Your task to perform on an android device: Open the calendar app, open the side menu, and click the "Day" option Image 0: 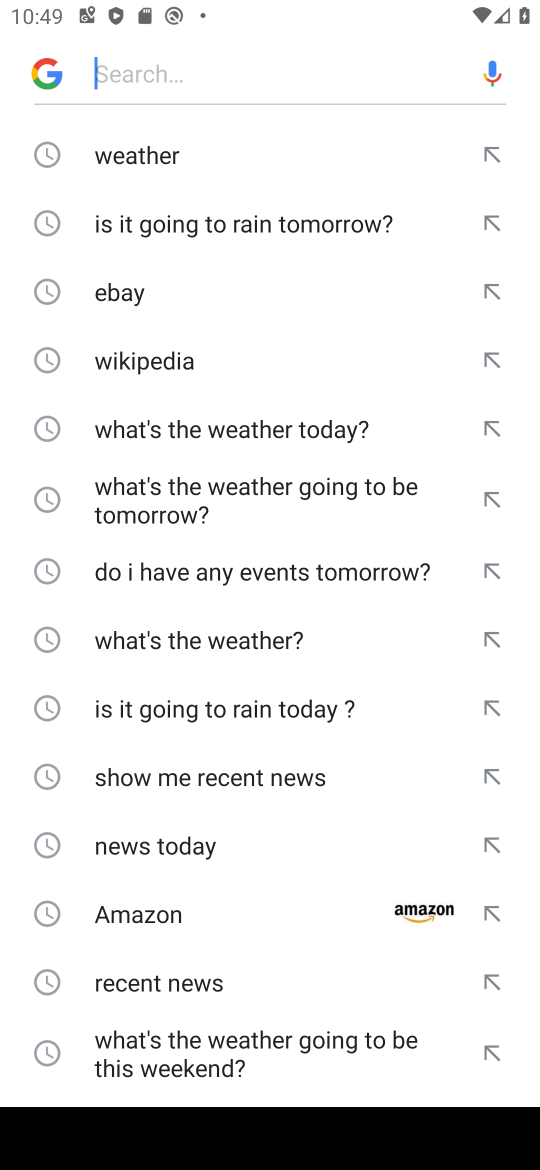
Step 0: press back button
Your task to perform on an android device: Open the calendar app, open the side menu, and click the "Day" option Image 1: 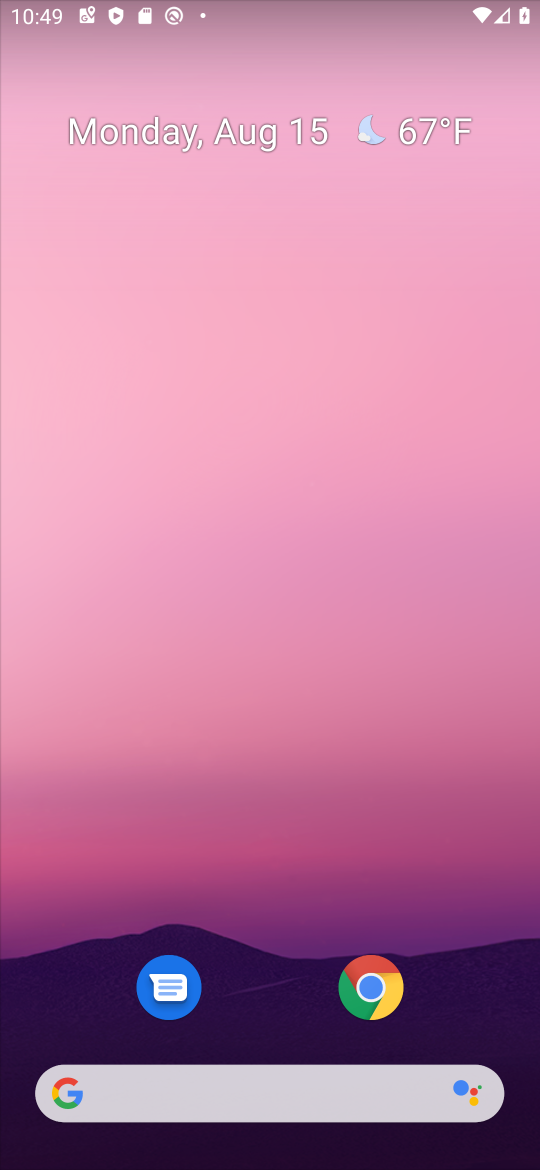
Step 1: drag from (297, 1010) to (293, 27)
Your task to perform on an android device: Open the calendar app, open the side menu, and click the "Day" option Image 2: 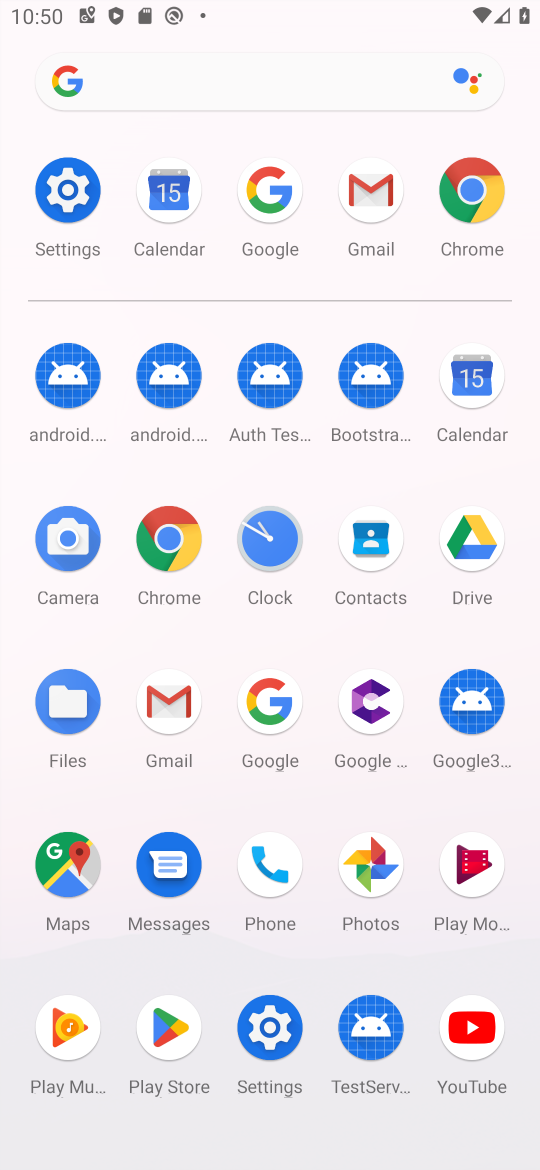
Step 2: click (478, 377)
Your task to perform on an android device: Open the calendar app, open the side menu, and click the "Day" option Image 3: 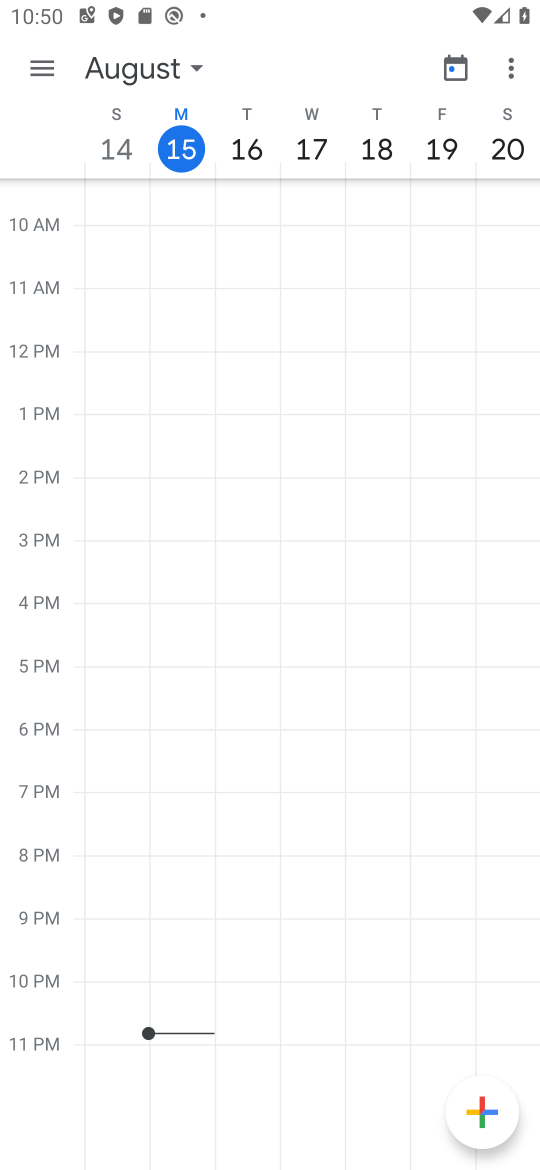
Step 3: click (43, 64)
Your task to perform on an android device: Open the calendar app, open the side menu, and click the "Day" option Image 4: 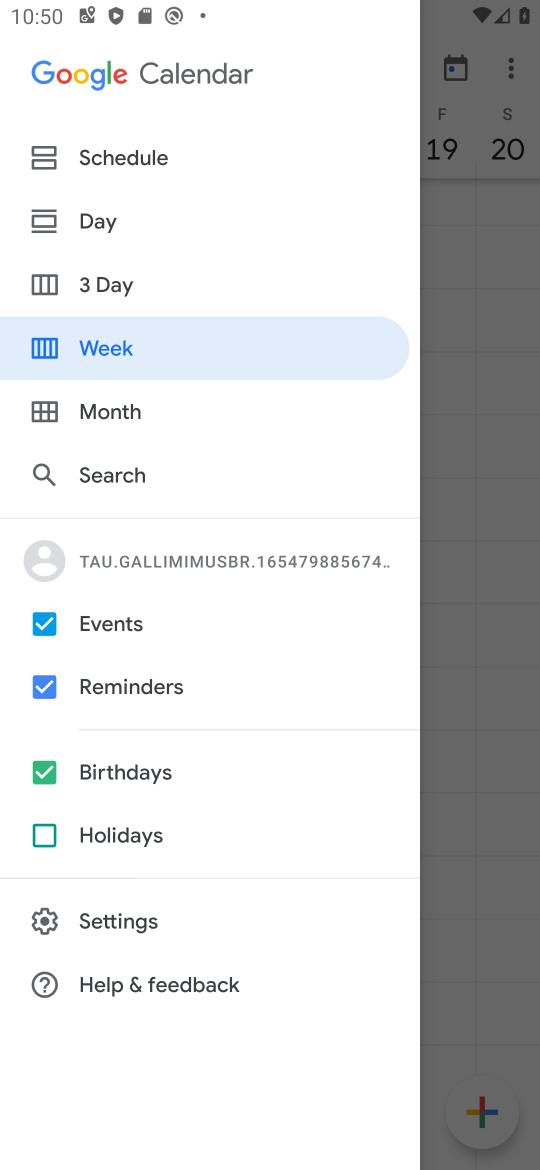
Step 4: click (113, 231)
Your task to perform on an android device: Open the calendar app, open the side menu, and click the "Day" option Image 5: 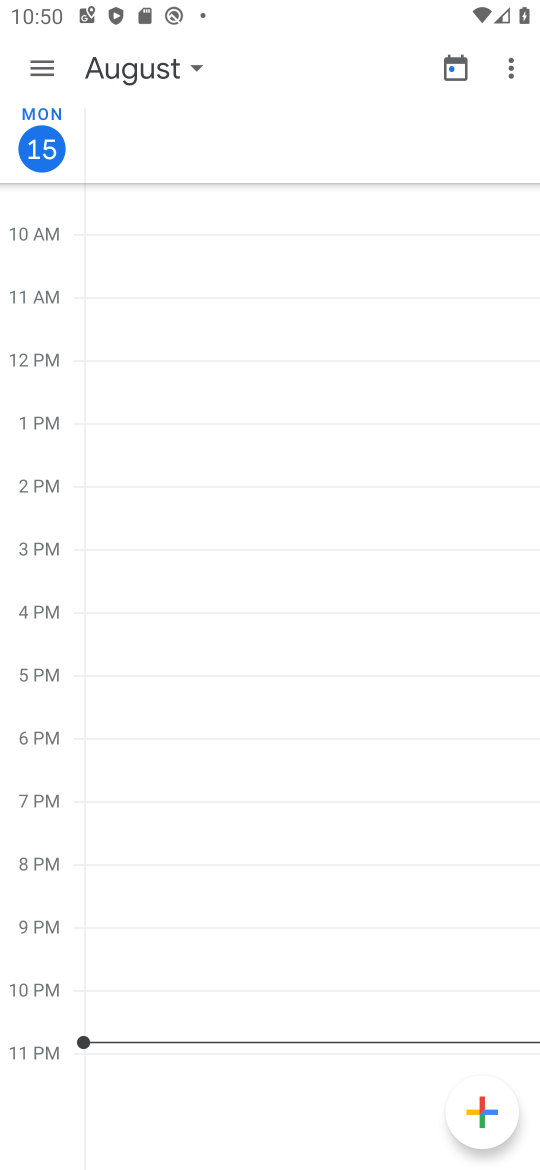
Step 5: task complete